Your task to perform on an android device: open a new tab in the chrome app Image 0: 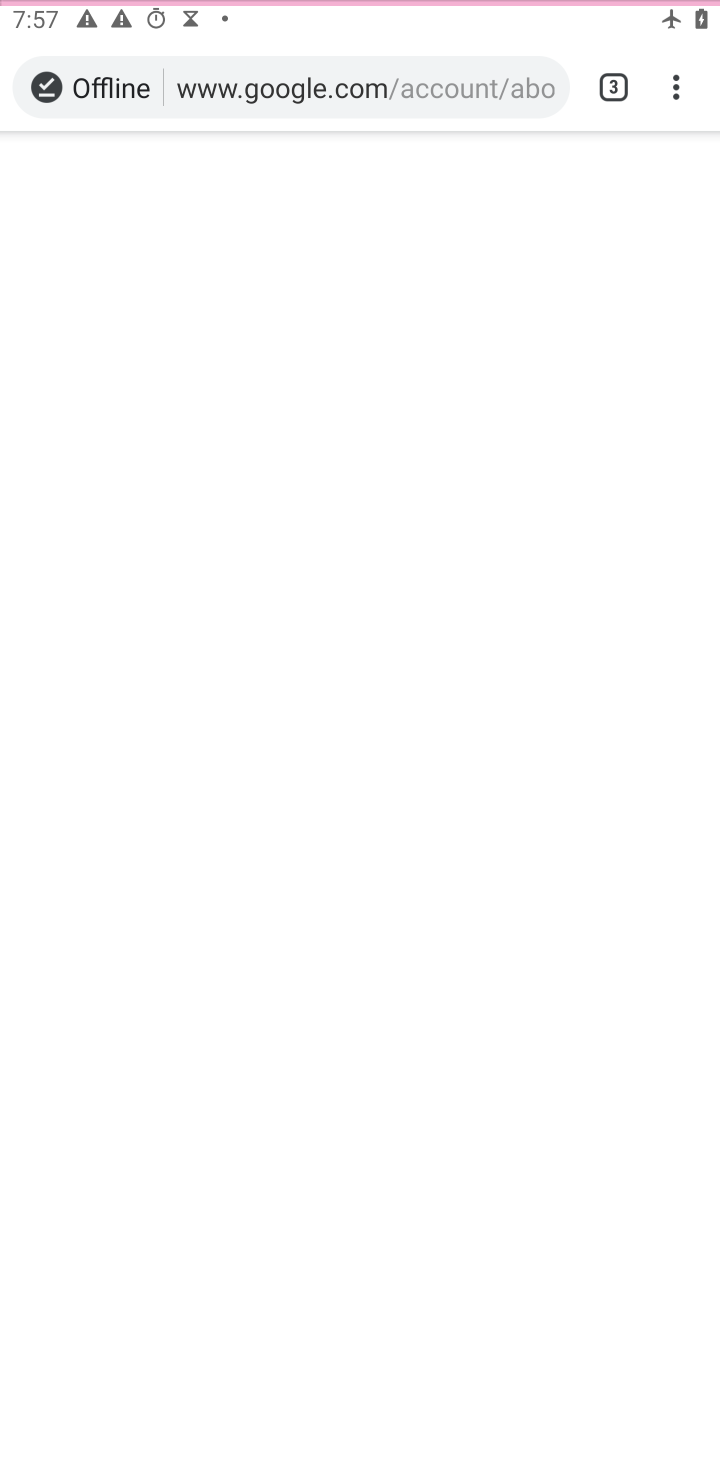
Step 0: press home button
Your task to perform on an android device: open a new tab in the chrome app Image 1: 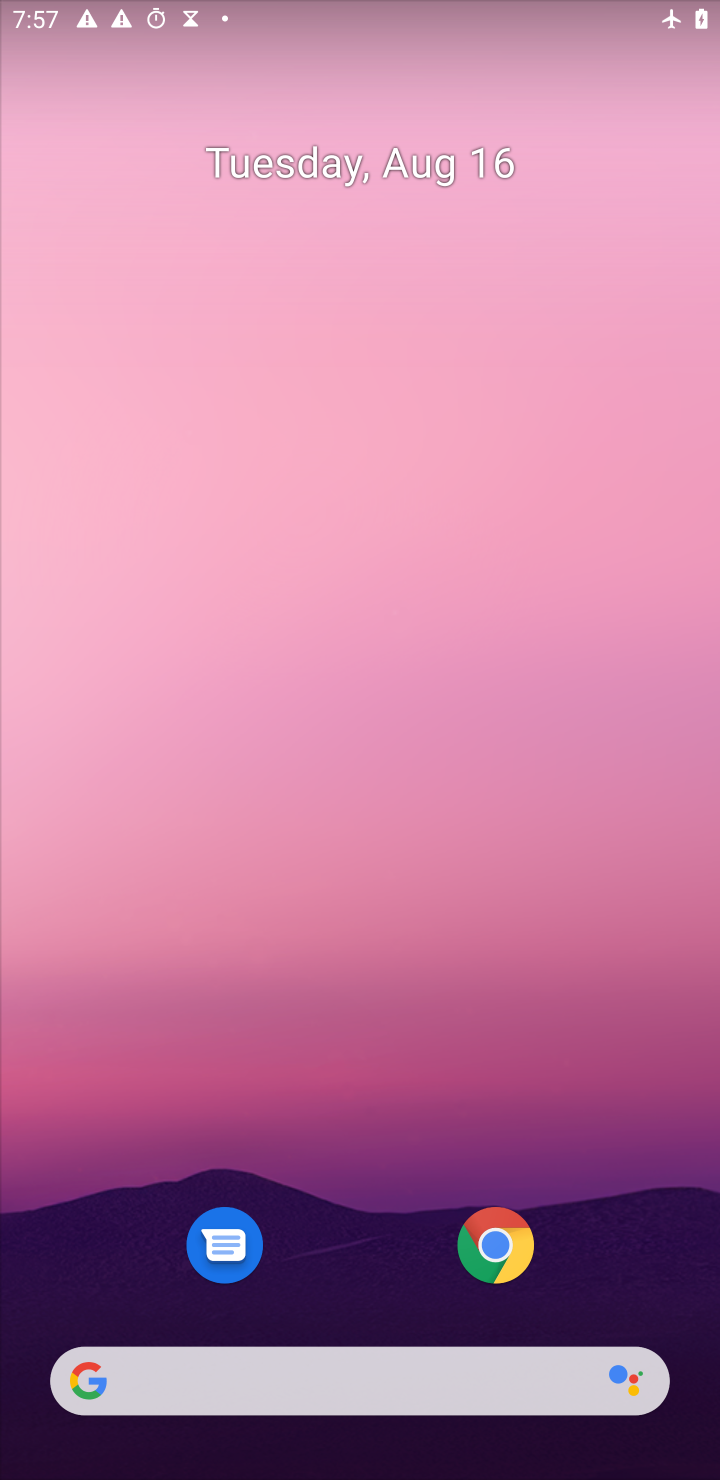
Step 1: click (505, 1248)
Your task to perform on an android device: open a new tab in the chrome app Image 2: 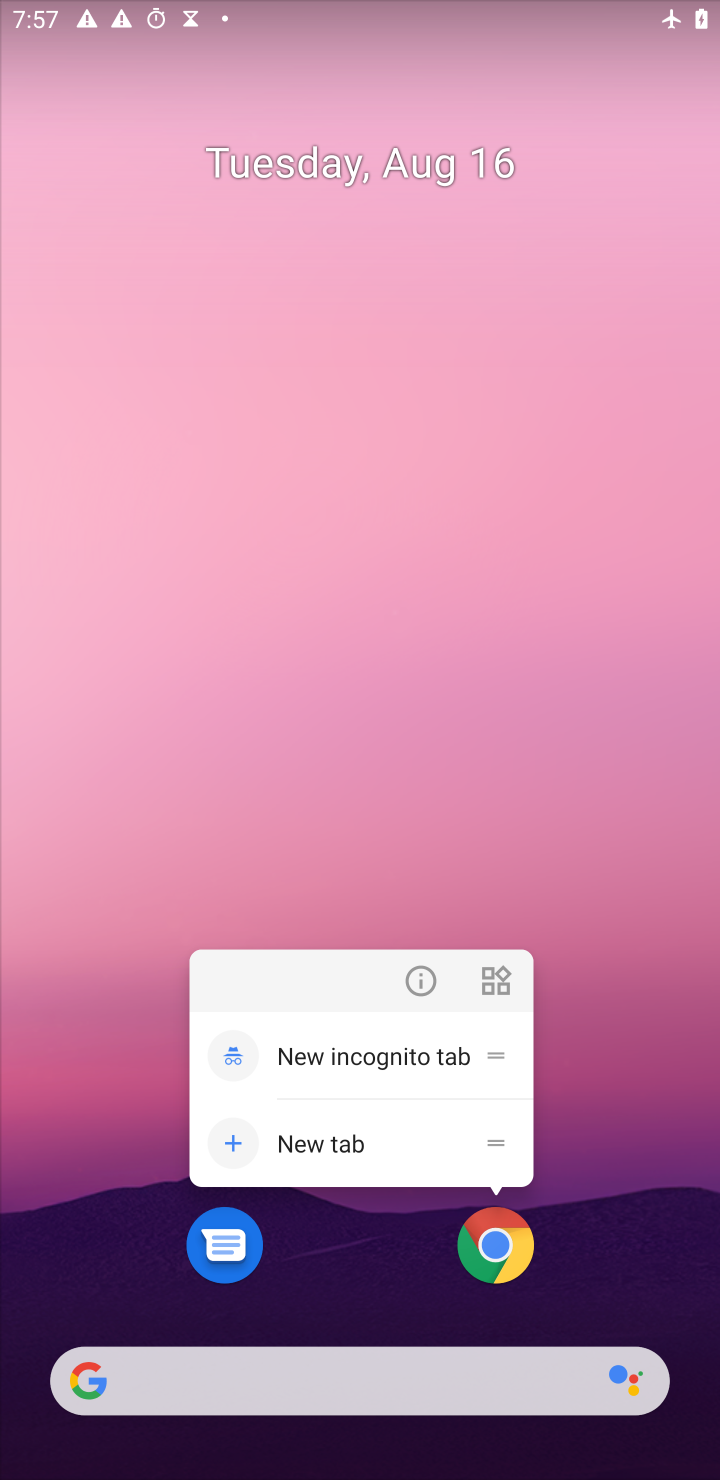
Step 2: click (490, 1247)
Your task to perform on an android device: open a new tab in the chrome app Image 3: 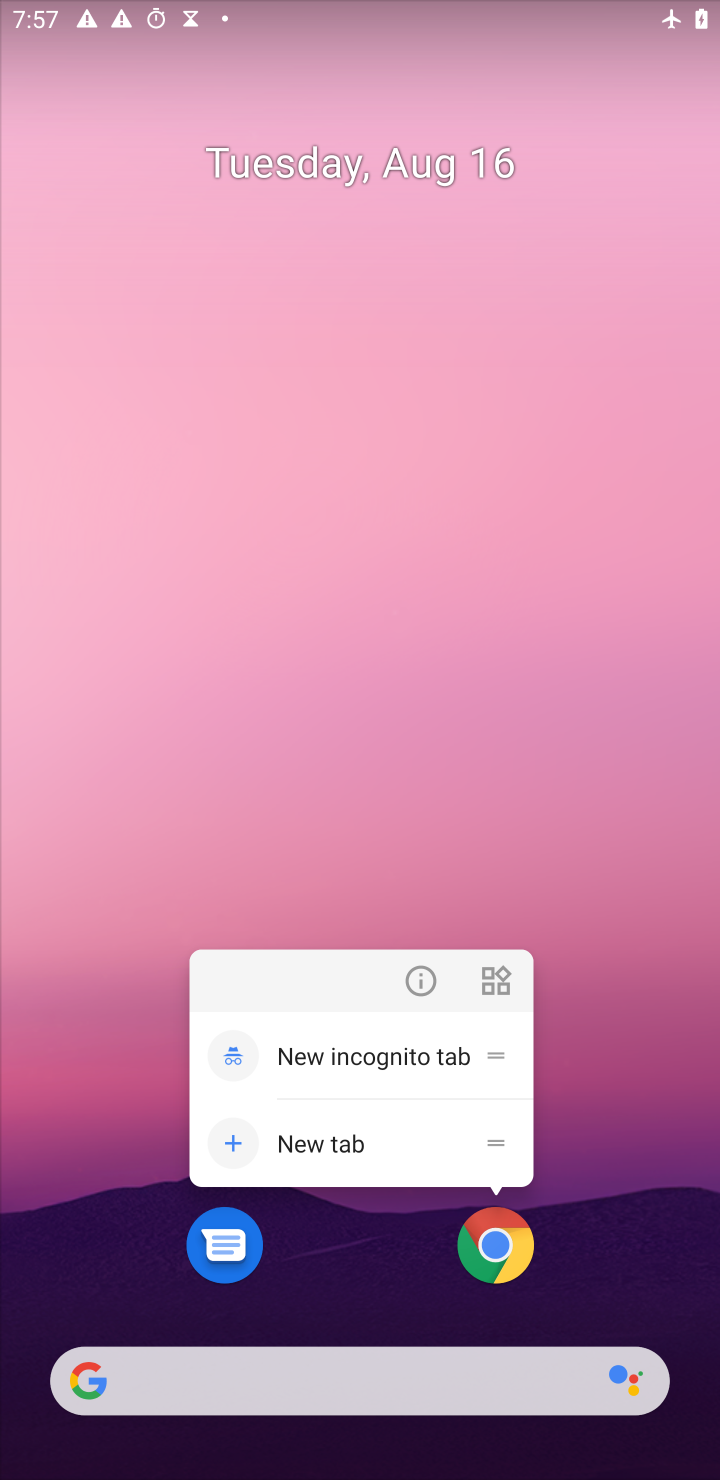
Step 3: click (490, 1247)
Your task to perform on an android device: open a new tab in the chrome app Image 4: 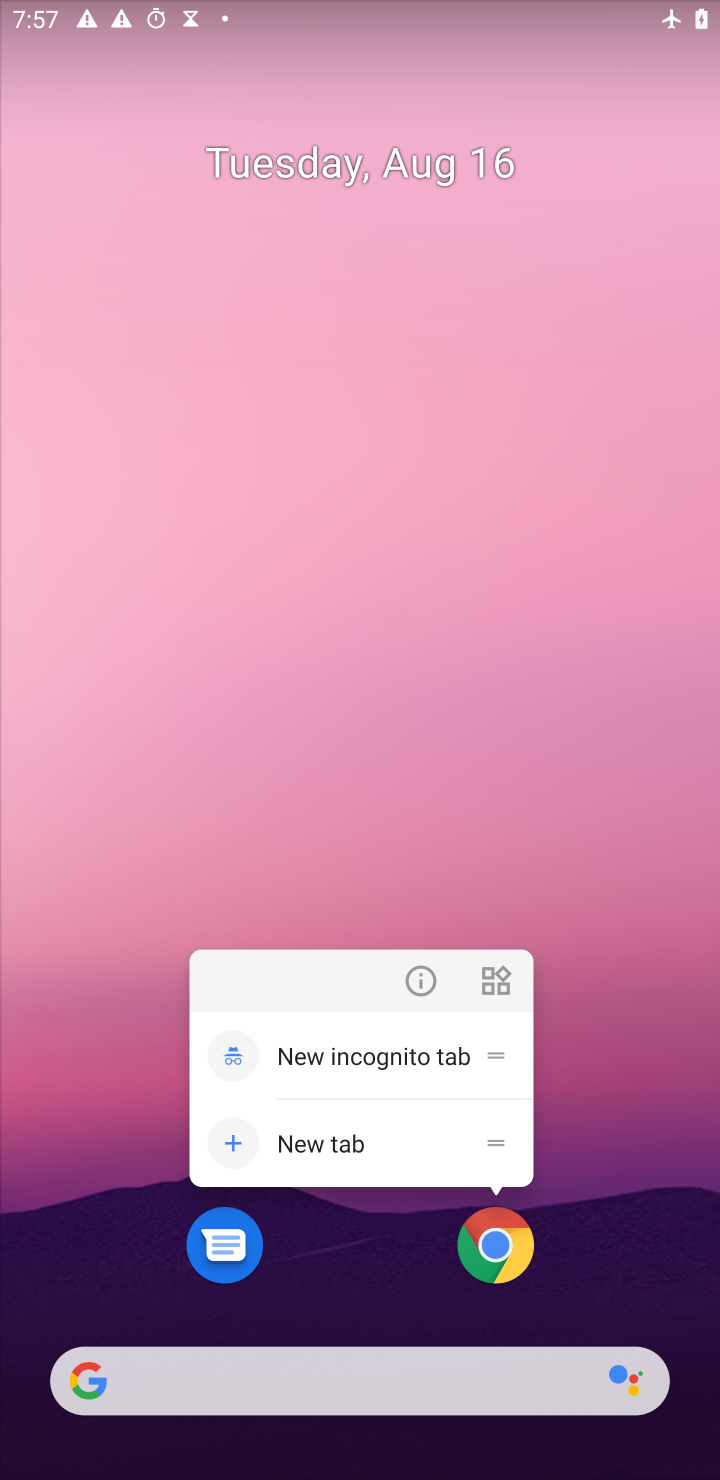
Step 4: press home button
Your task to perform on an android device: open a new tab in the chrome app Image 5: 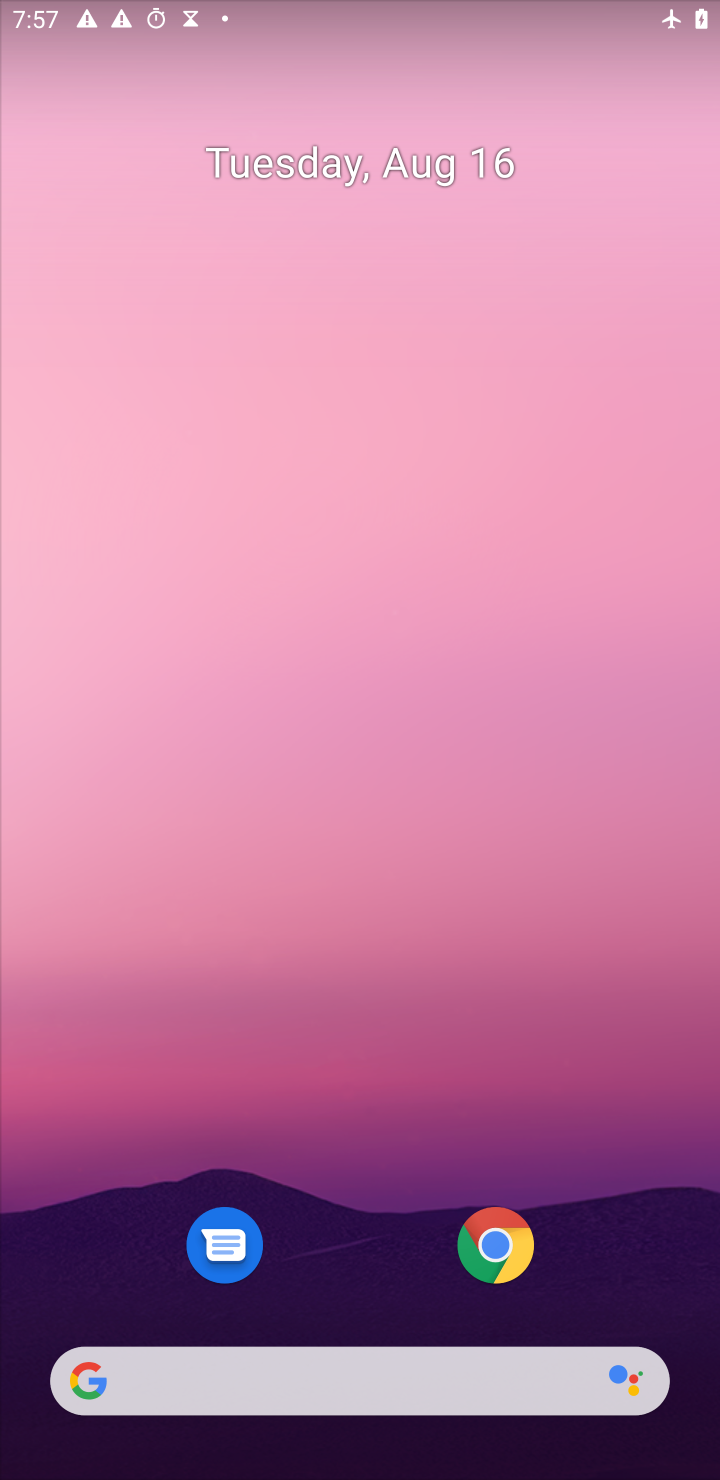
Step 5: drag from (377, 1137) to (347, 94)
Your task to perform on an android device: open a new tab in the chrome app Image 6: 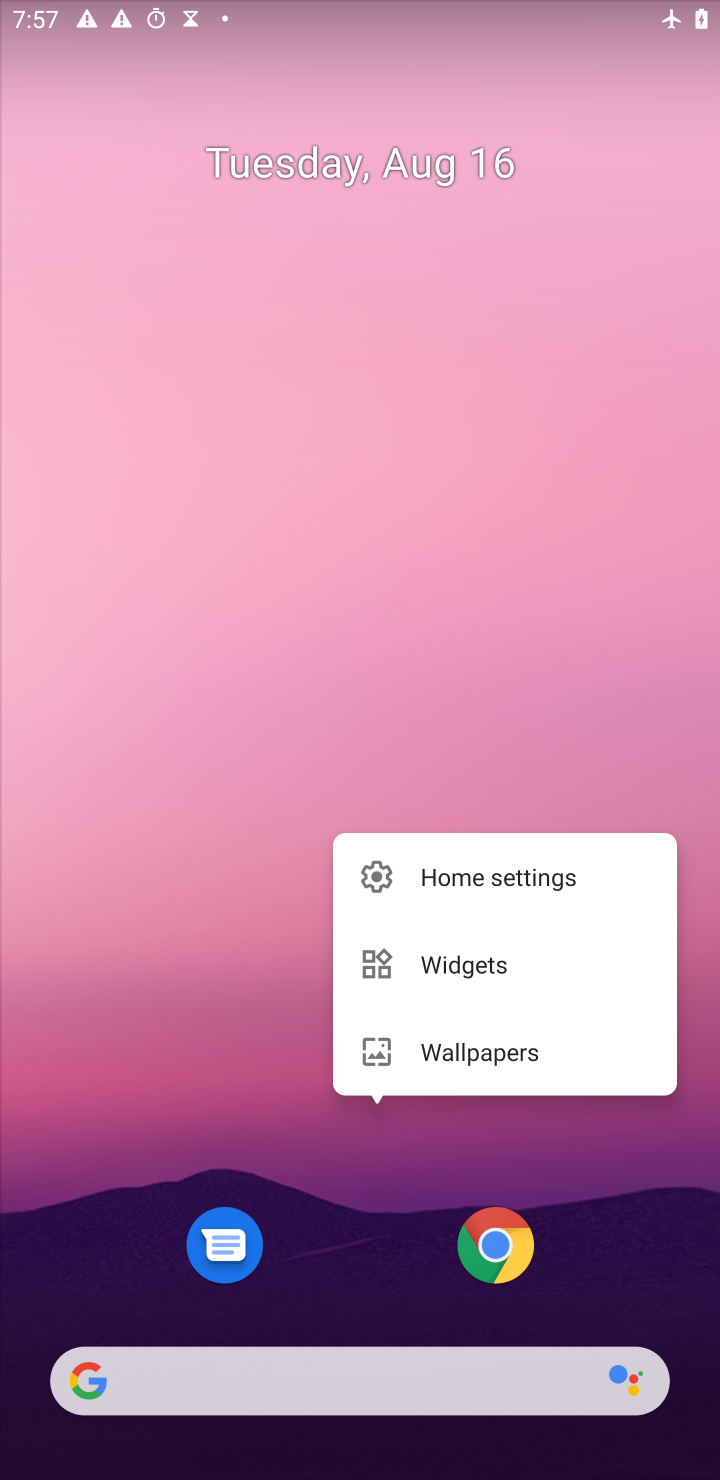
Step 6: press home button
Your task to perform on an android device: open a new tab in the chrome app Image 7: 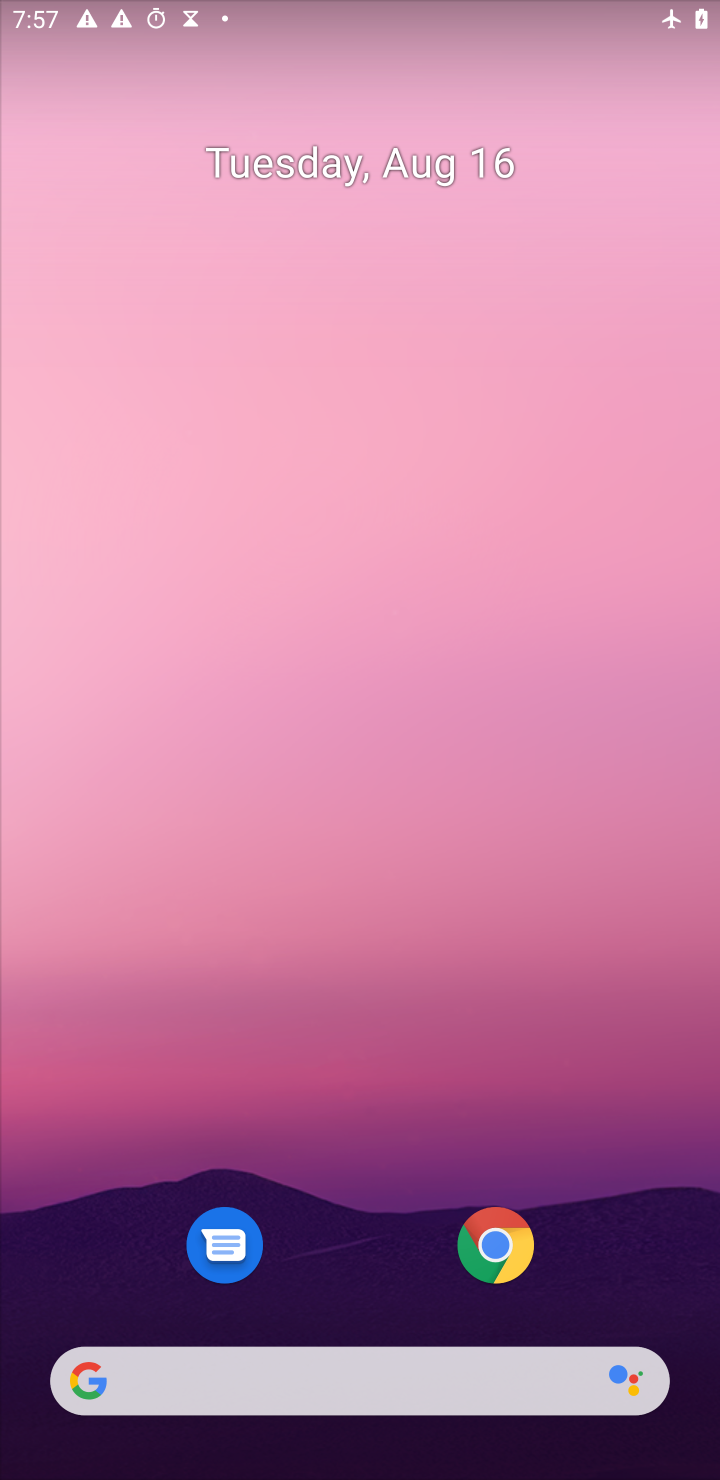
Step 7: drag from (317, 435) to (304, 67)
Your task to perform on an android device: open a new tab in the chrome app Image 8: 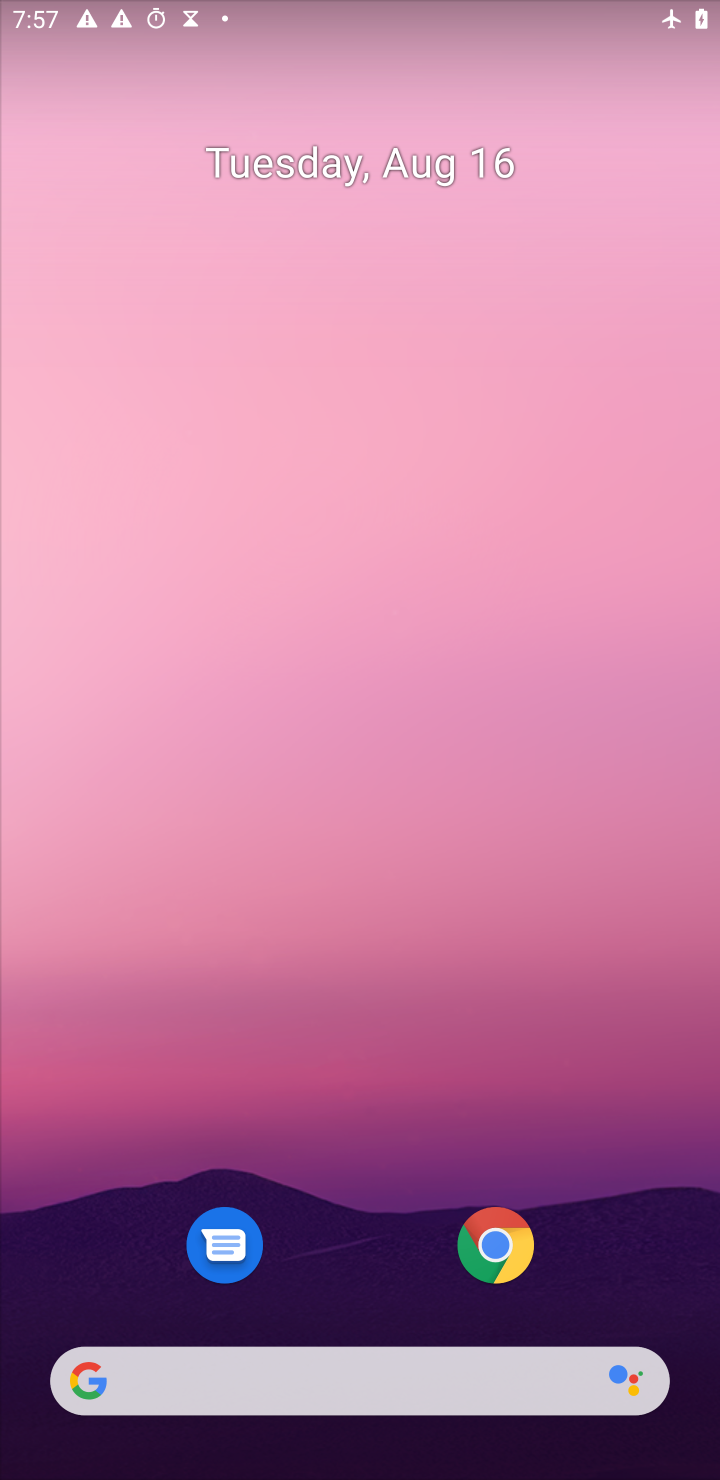
Step 8: drag from (366, 1247) to (415, 8)
Your task to perform on an android device: open a new tab in the chrome app Image 9: 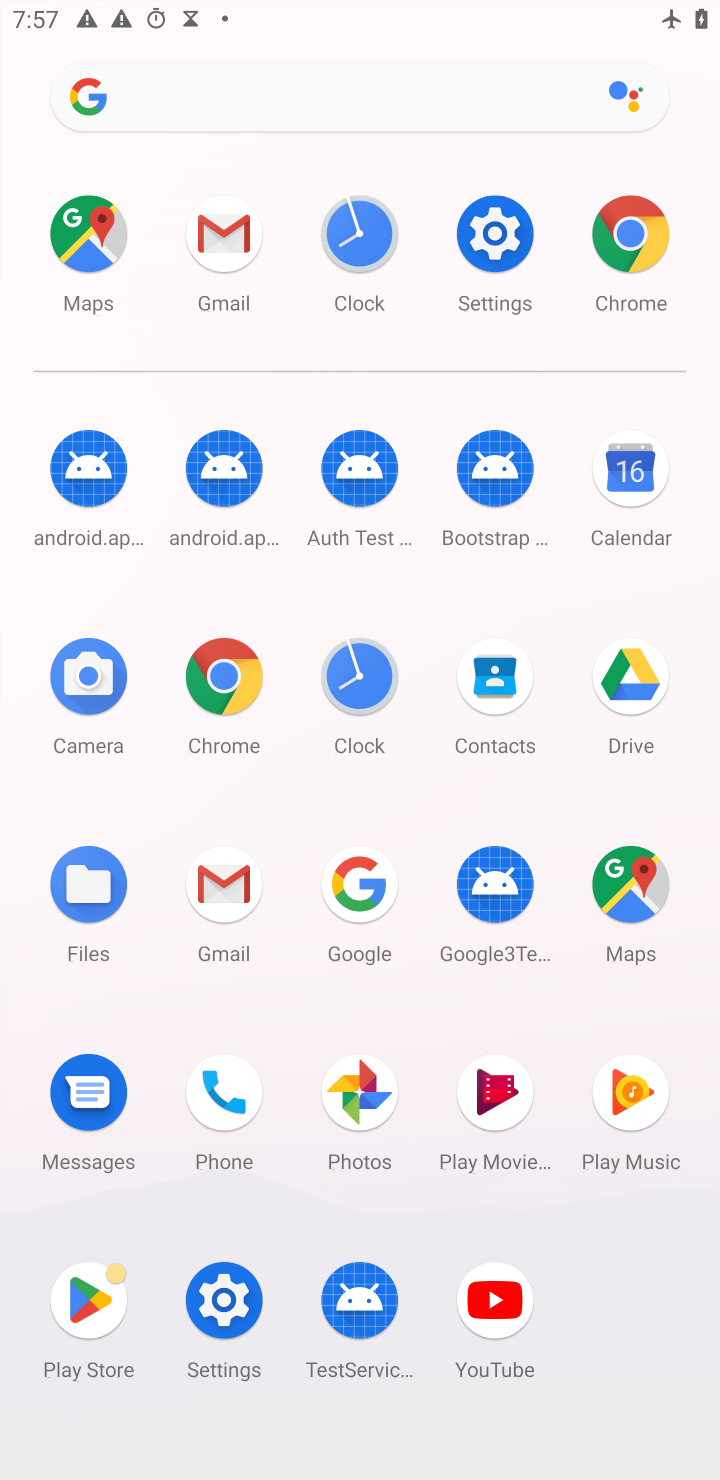
Step 9: click (634, 237)
Your task to perform on an android device: open a new tab in the chrome app Image 10: 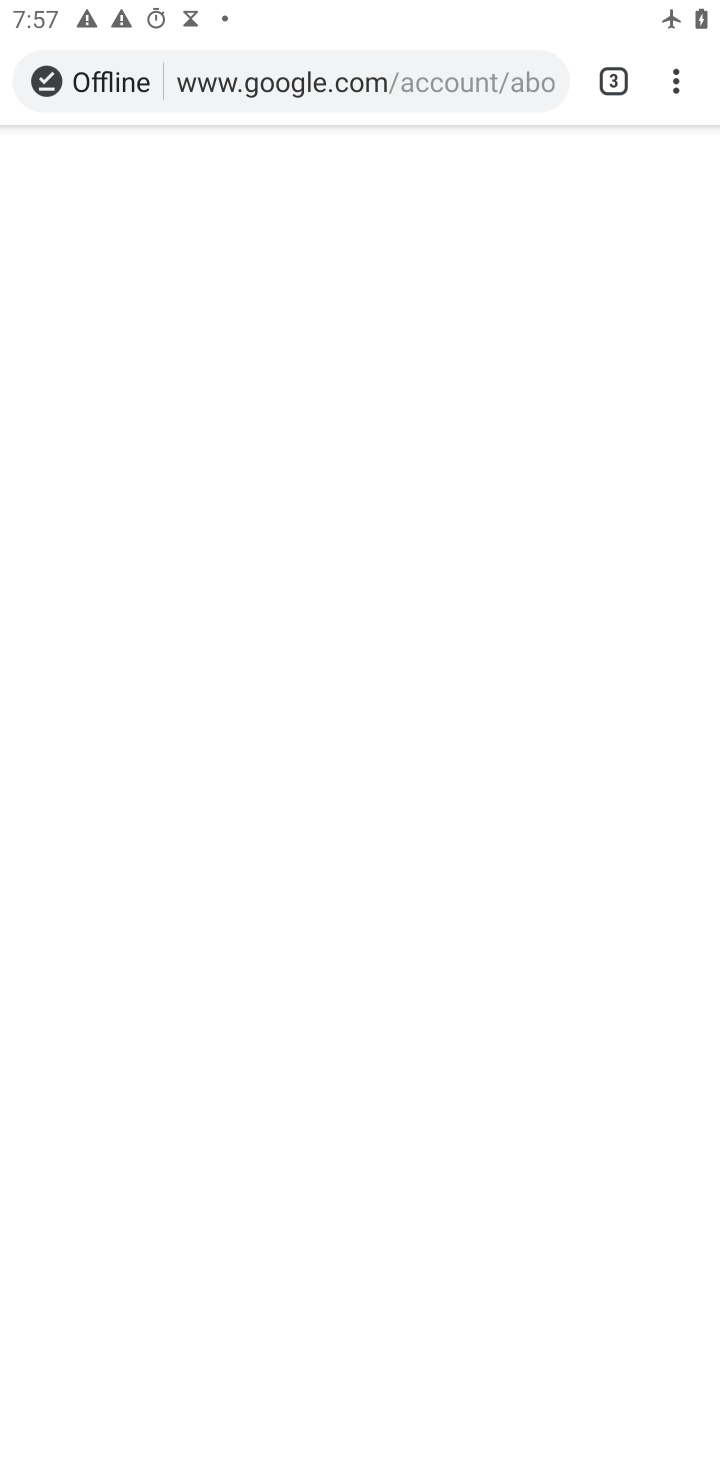
Step 10: click (613, 74)
Your task to perform on an android device: open a new tab in the chrome app Image 11: 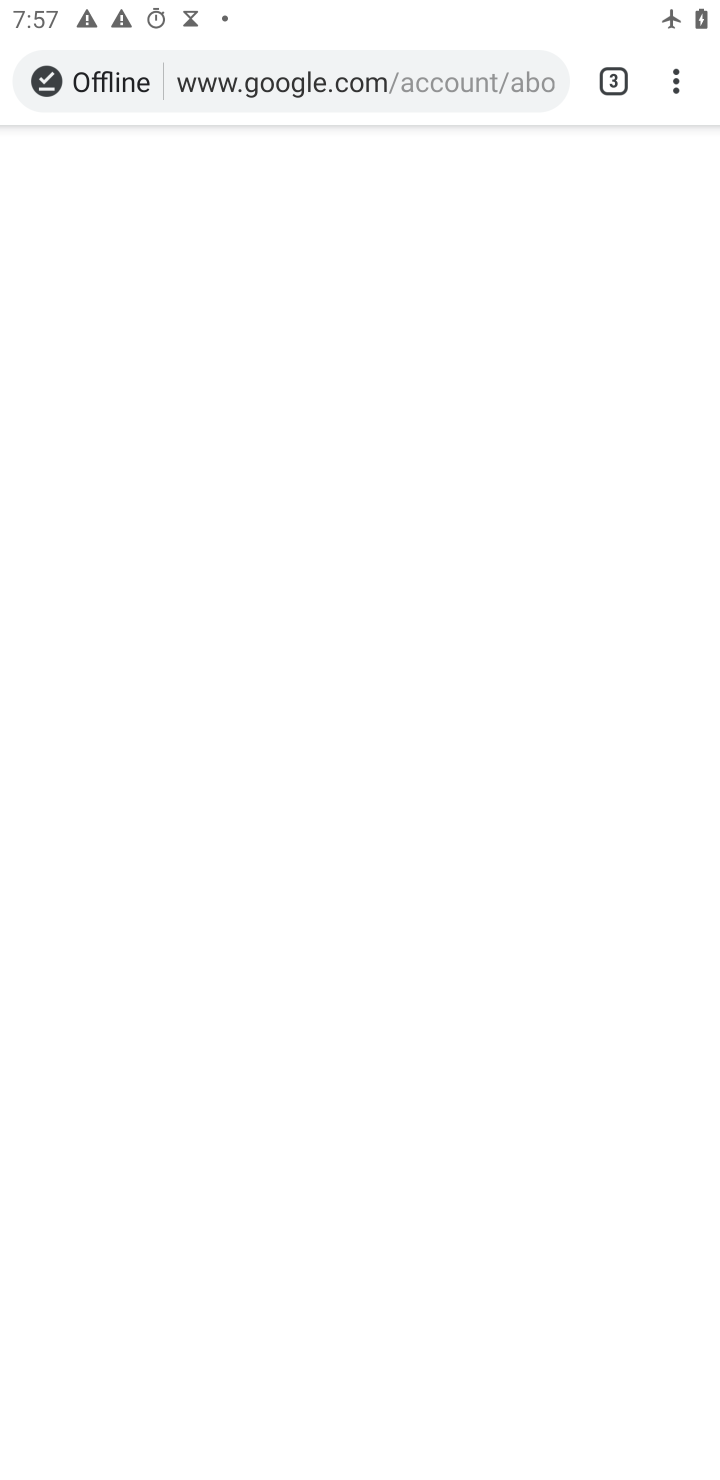
Step 11: task complete